Your task to perform on an android device: open app "Venmo" Image 0: 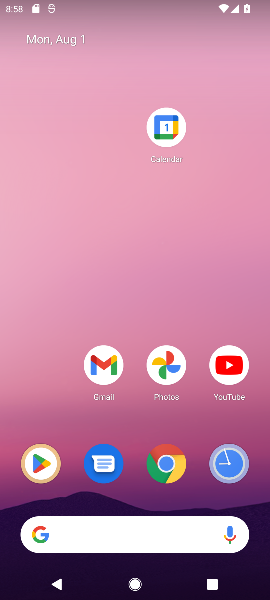
Step 0: click (87, 524)
Your task to perform on an android device: open app "Venmo" Image 1: 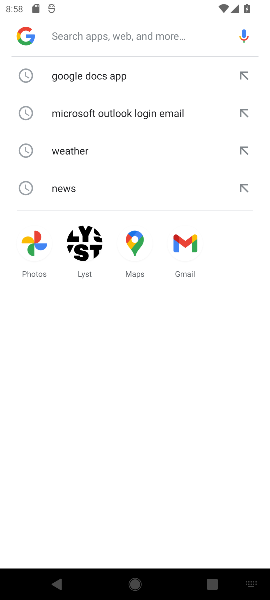
Step 1: press home button
Your task to perform on an android device: open app "Venmo" Image 2: 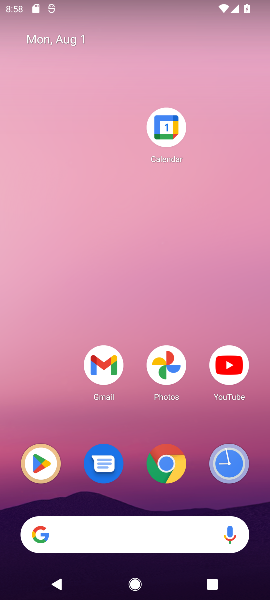
Step 2: click (12, 475)
Your task to perform on an android device: open app "Venmo" Image 3: 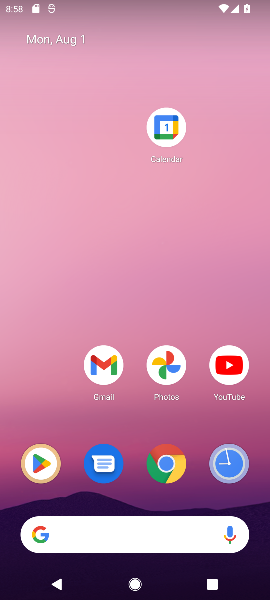
Step 3: click (30, 467)
Your task to perform on an android device: open app "Venmo" Image 4: 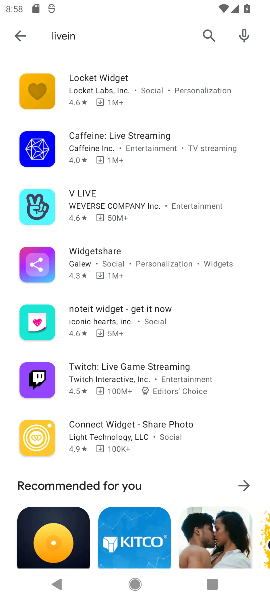
Step 4: click (197, 37)
Your task to perform on an android device: open app "Venmo" Image 5: 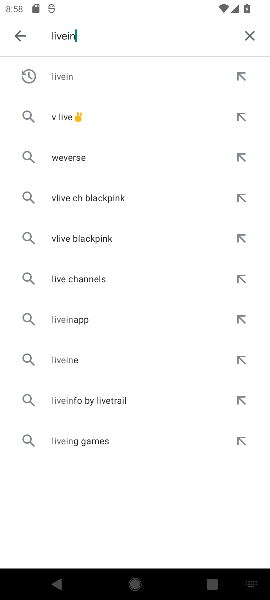
Step 5: click (241, 37)
Your task to perform on an android device: open app "Venmo" Image 6: 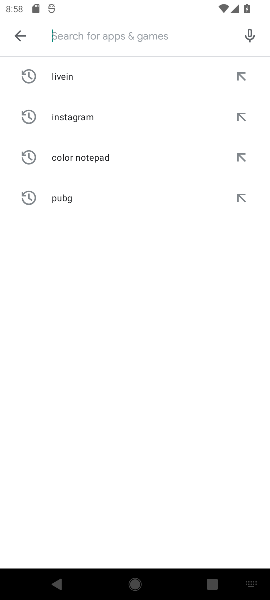
Step 6: type "venmo"
Your task to perform on an android device: open app "Venmo" Image 7: 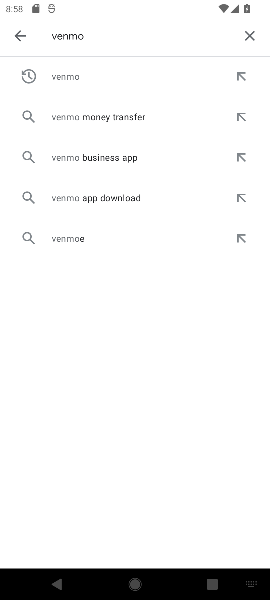
Step 7: click (178, 86)
Your task to perform on an android device: open app "Venmo" Image 8: 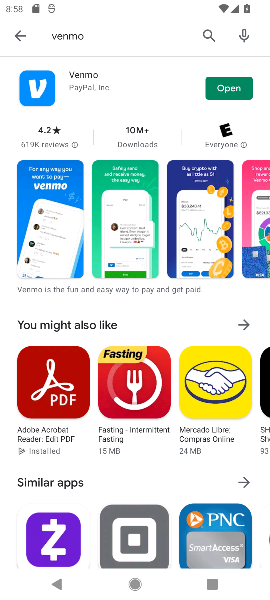
Step 8: task complete